Your task to perform on an android device: Is it going to rain this weekend? Image 0: 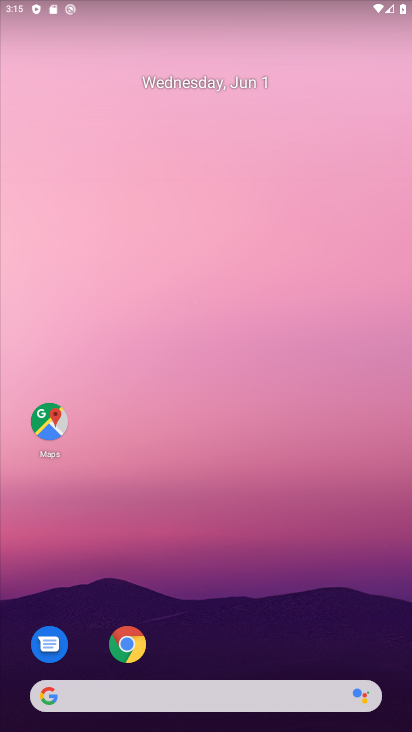
Step 0: drag from (196, 643) to (133, 114)
Your task to perform on an android device: Is it going to rain this weekend? Image 1: 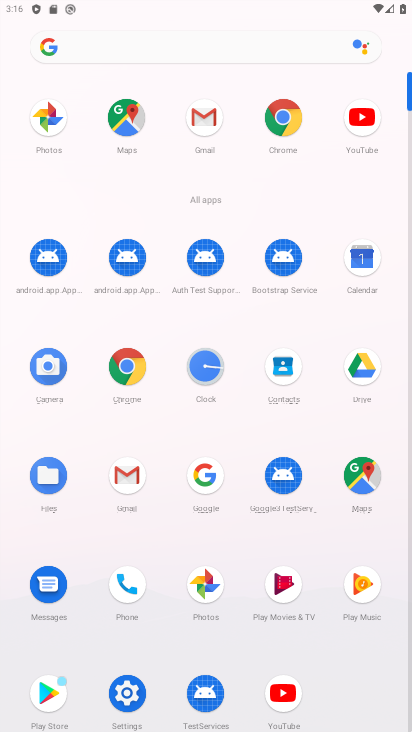
Step 1: click (283, 126)
Your task to perform on an android device: Is it going to rain this weekend? Image 2: 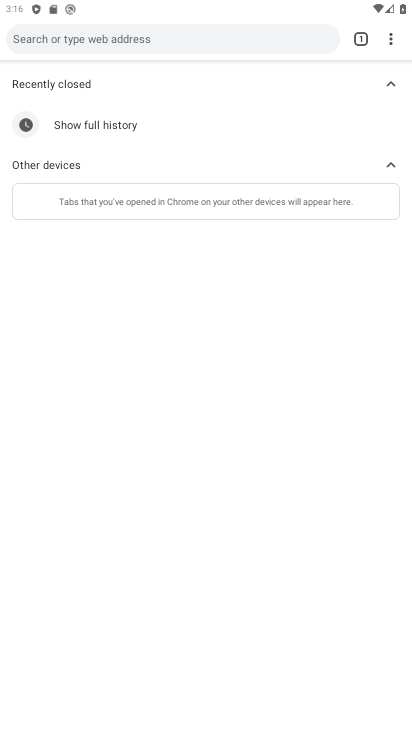
Step 2: click (197, 38)
Your task to perform on an android device: Is it going to rain this weekend? Image 3: 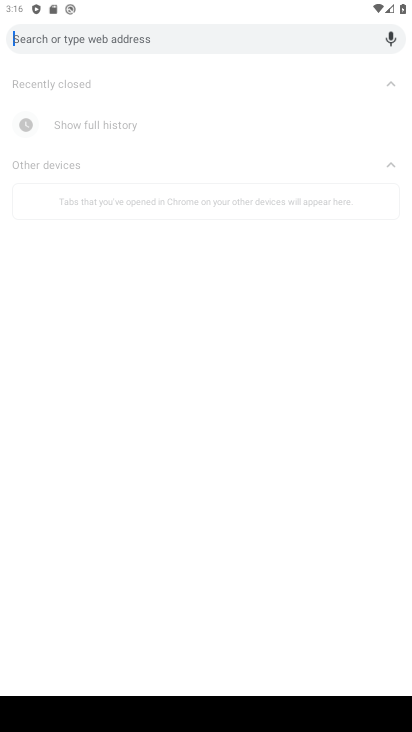
Step 3: type "Is it going to rain this weekend?"
Your task to perform on an android device: Is it going to rain this weekend? Image 4: 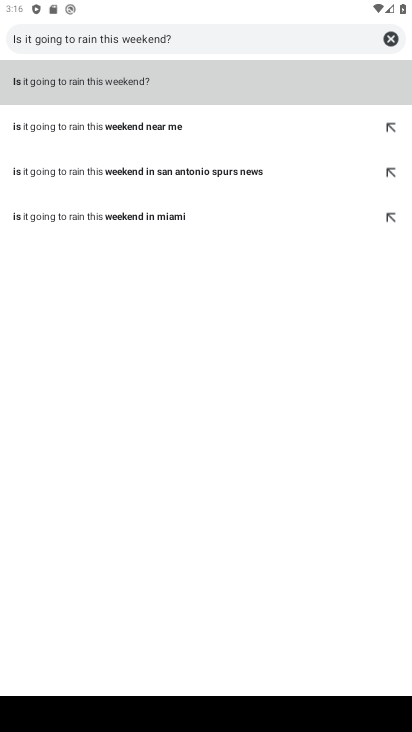
Step 4: click (132, 76)
Your task to perform on an android device: Is it going to rain this weekend? Image 5: 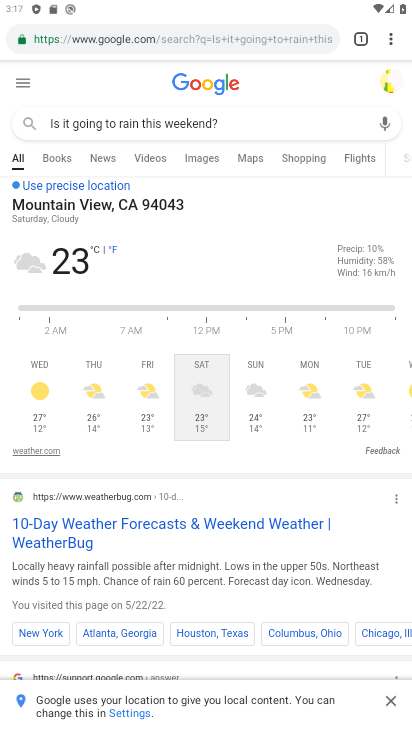
Step 5: task complete